Your task to perform on an android device: Open calendar and show me the first week of next month Image 0: 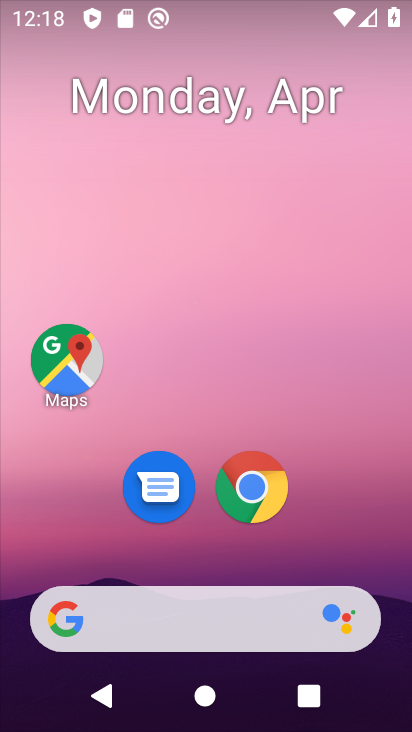
Step 0: drag from (394, 619) to (258, 82)
Your task to perform on an android device: Open calendar and show me the first week of next month Image 1: 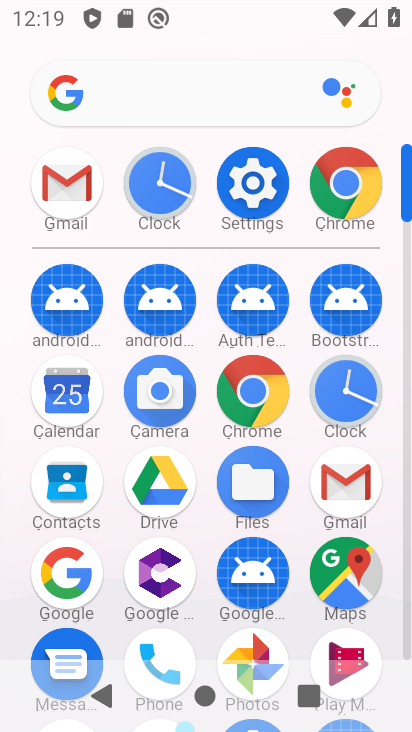
Step 1: click (75, 402)
Your task to perform on an android device: Open calendar and show me the first week of next month Image 2: 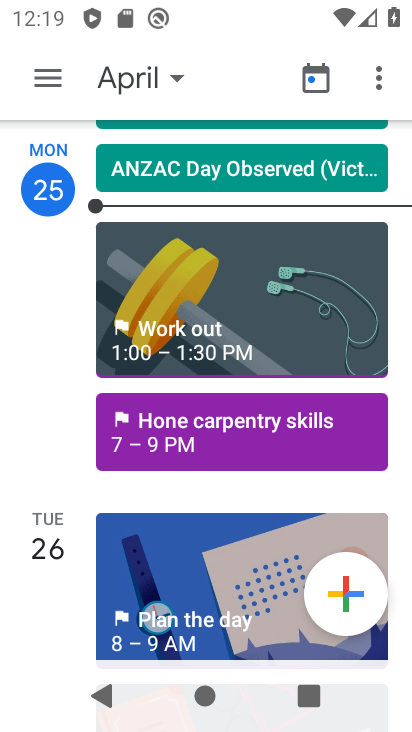
Step 2: click (118, 71)
Your task to perform on an android device: Open calendar and show me the first week of next month Image 3: 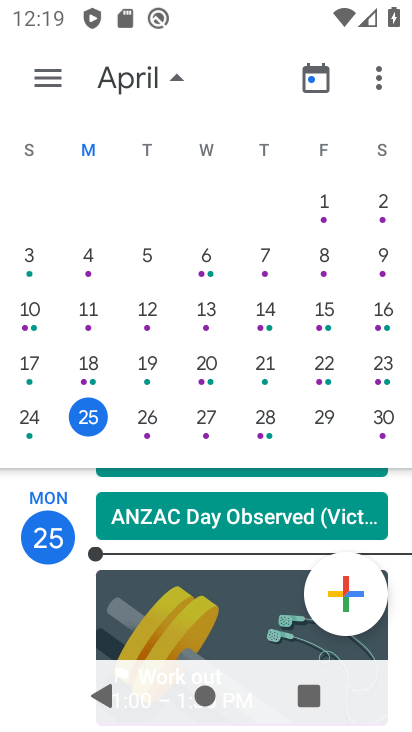
Step 3: drag from (321, 251) to (0, 297)
Your task to perform on an android device: Open calendar and show me the first week of next month Image 4: 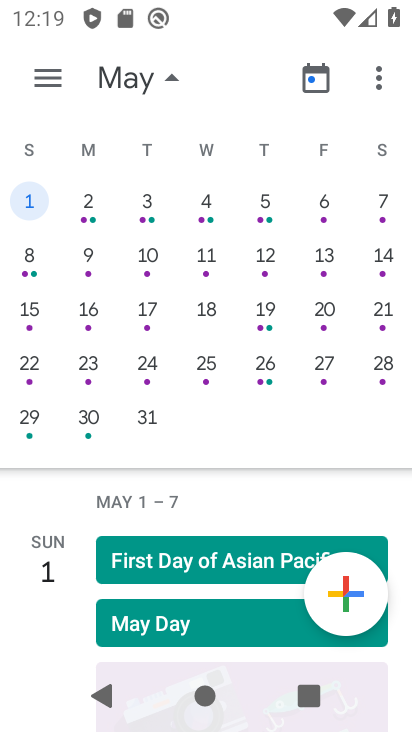
Step 4: click (261, 215)
Your task to perform on an android device: Open calendar and show me the first week of next month Image 5: 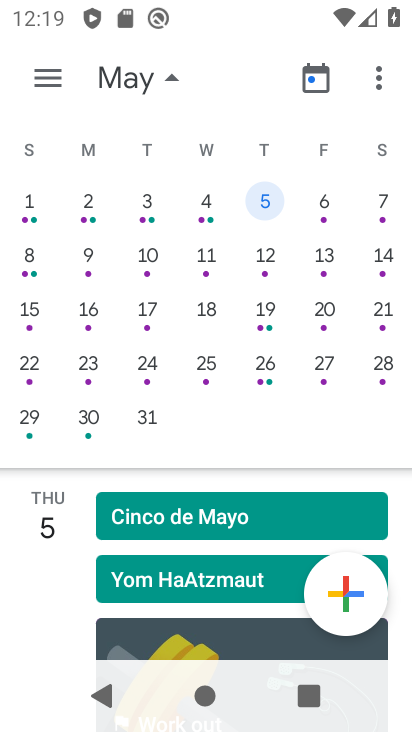
Step 5: task complete